Your task to perform on an android device: Show me popular videos on Youtube Image 0: 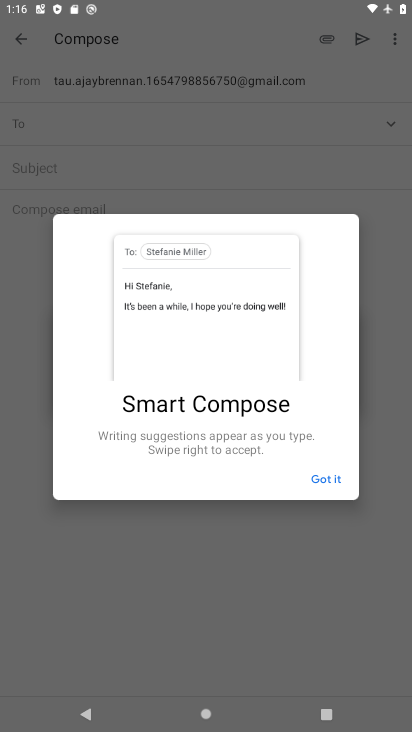
Step 0: press home button
Your task to perform on an android device: Show me popular videos on Youtube Image 1: 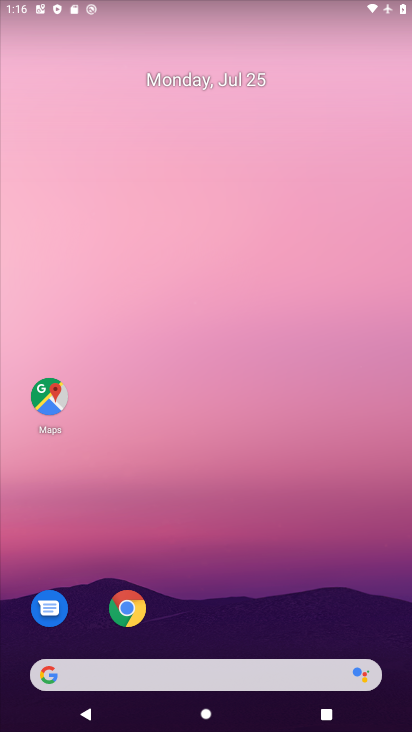
Step 1: drag from (246, 631) to (311, 226)
Your task to perform on an android device: Show me popular videos on Youtube Image 2: 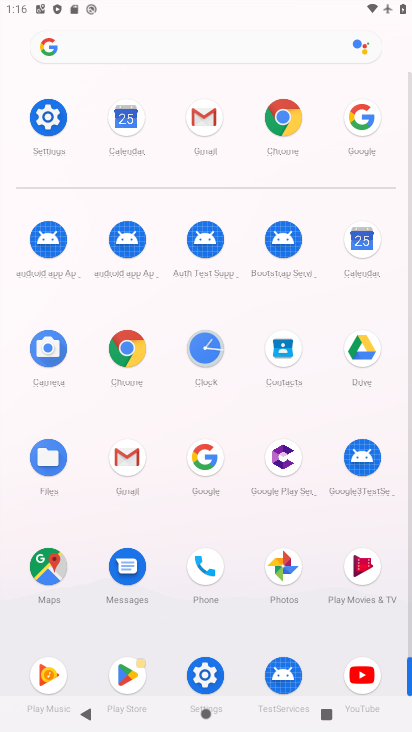
Step 2: click (363, 678)
Your task to perform on an android device: Show me popular videos on Youtube Image 3: 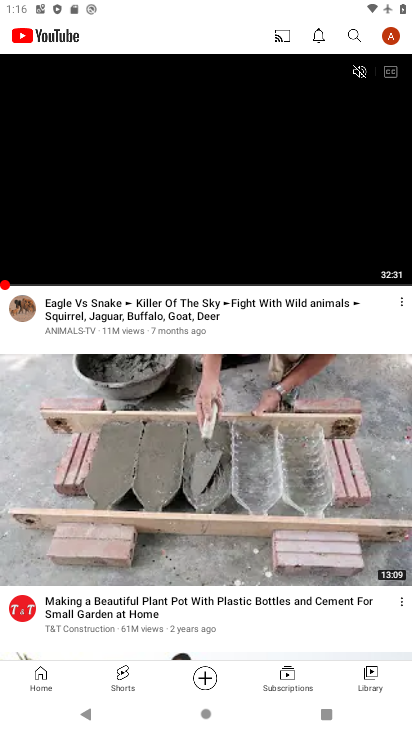
Step 3: task complete